Your task to perform on an android device: open sync settings in chrome Image 0: 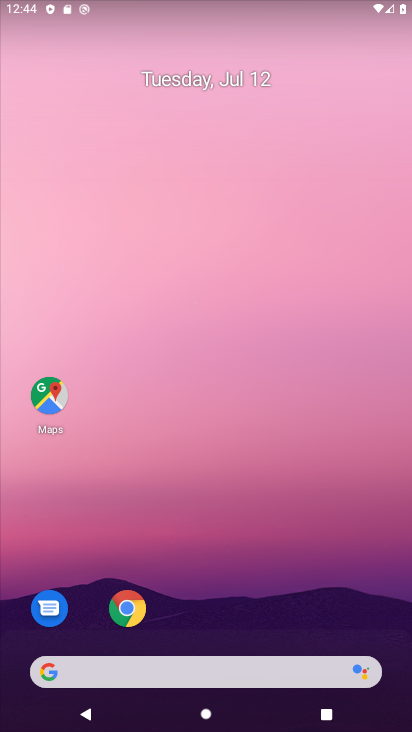
Step 0: drag from (248, 630) to (262, 72)
Your task to perform on an android device: open sync settings in chrome Image 1: 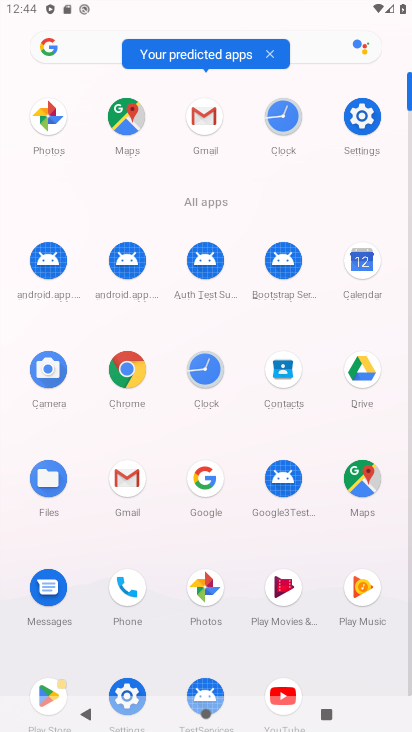
Step 1: click (132, 373)
Your task to perform on an android device: open sync settings in chrome Image 2: 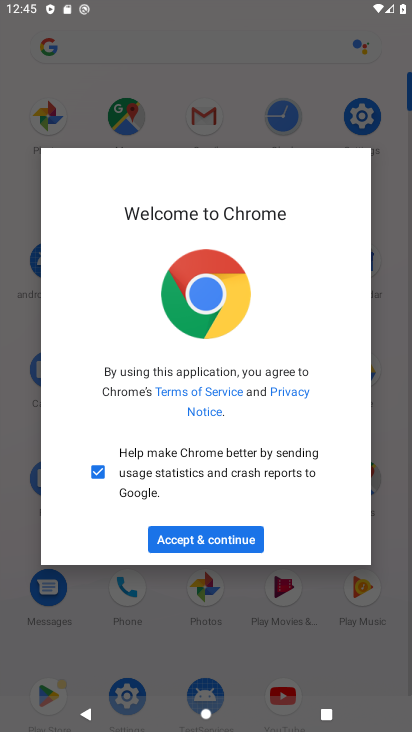
Step 2: click (218, 536)
Your task to perform on an android device: open sync settings in chrome Image 3: 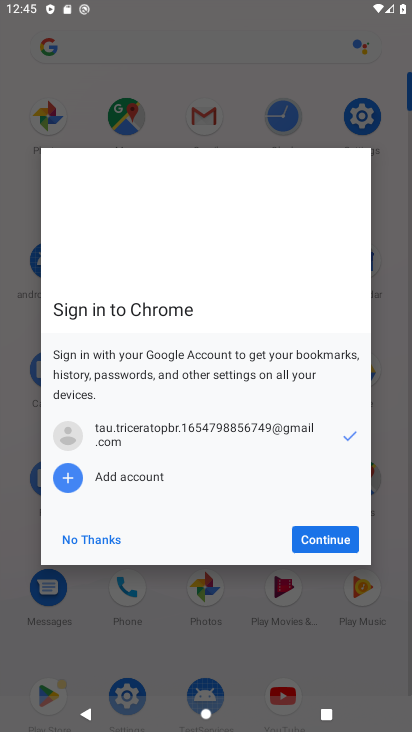
Step 3: click (327, 549)
Your task to perform on an android device: open sync settings in chrome Image 4: 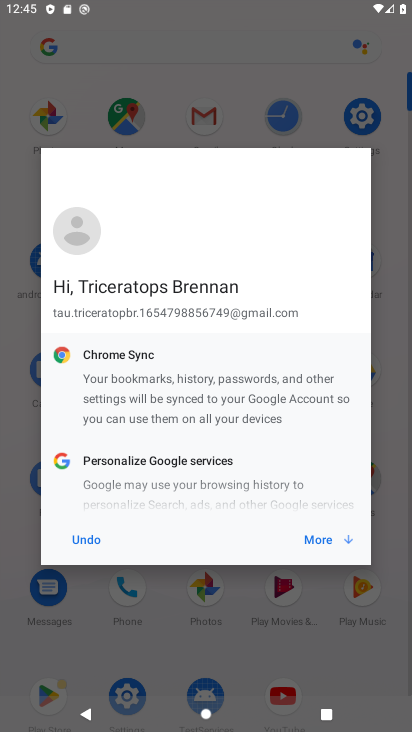
Step 4: click (322, 548)
Your task to perform on an android device: open sync settings in chrome Image 5: 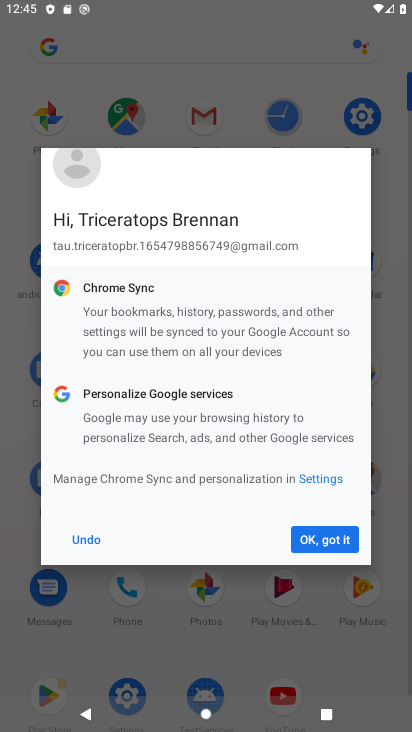
Step 5: click (334, 547)
Your task to perform on an android device: open sync settings in chrome Image 6: 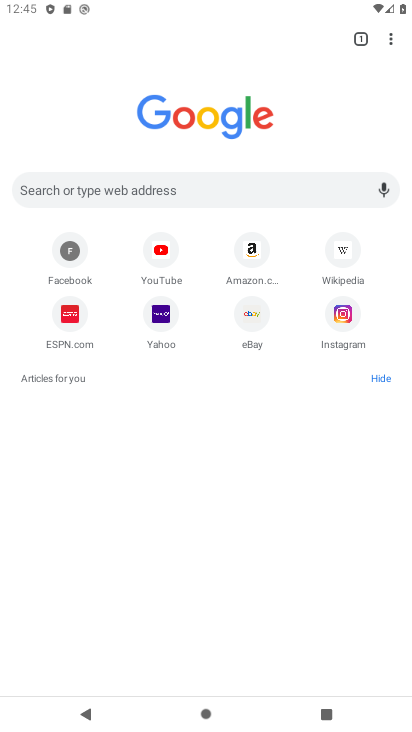
Step 6: click (386, 46)
Your task to perform on an android device: open sync settings in chrome Image 7: 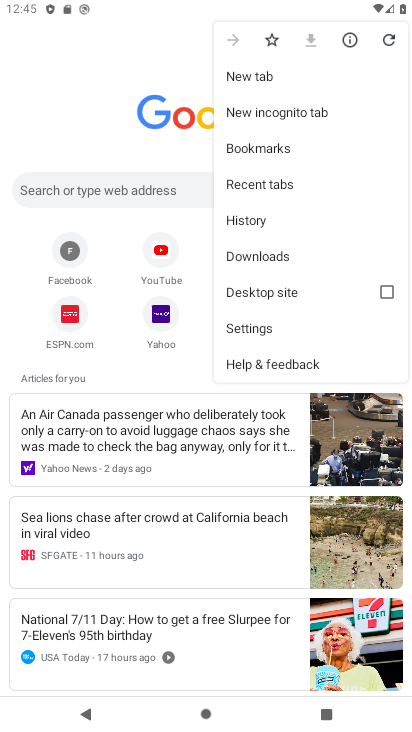
Step 7: click (280, 330)
Your task to perform on an android device: open sync settings in chrome Image 8: 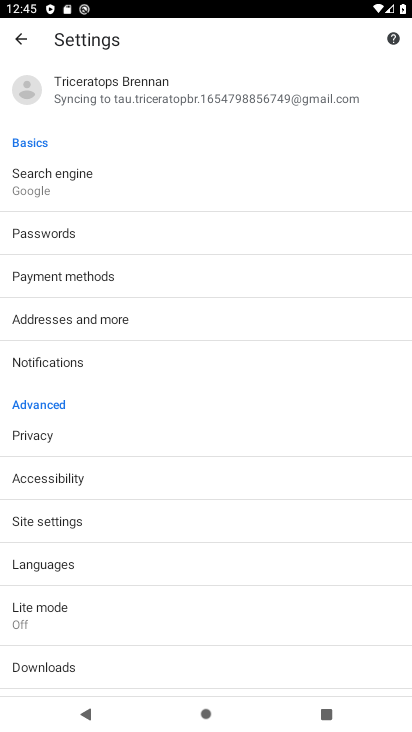
Step 8: click (220, 94)
Your task to perform on an android device: open sync settings in chrome Image 9: 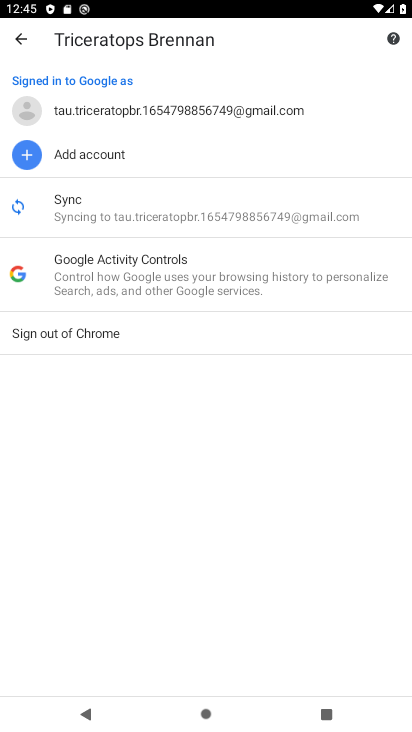
Step 9: click (232, 211)
Your task to perform on an android device: open sync settings in chrome Image 10: 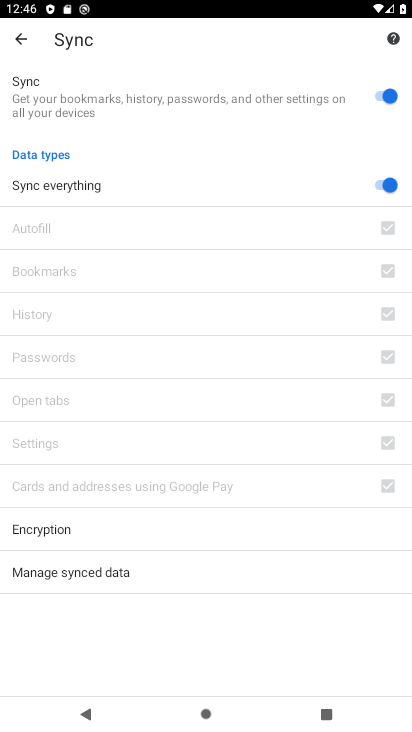
Step 10: task complete